Your task to perform on an android device: Go to Google maps Image 0: 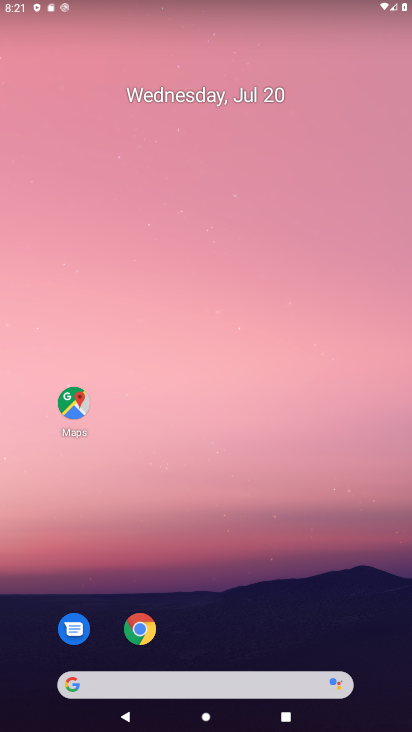
Step 0: click (55, 392)
Your task to perform on an android device: Go to Google maps Image 1: 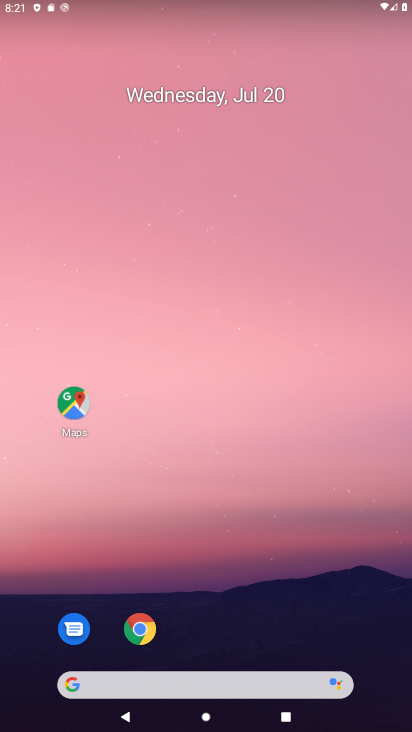
Step 1: click (57, 389)
Your task to perform on an android device: Go to Google maps Image 2: 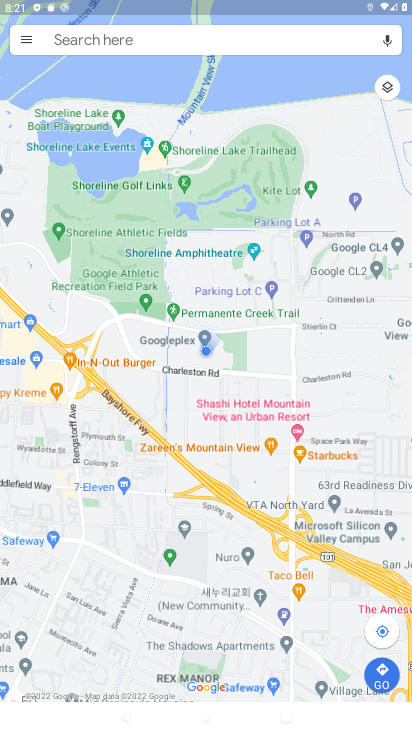
Step 2: task complete